Your task to perform on an android device: check google app version Image 0: 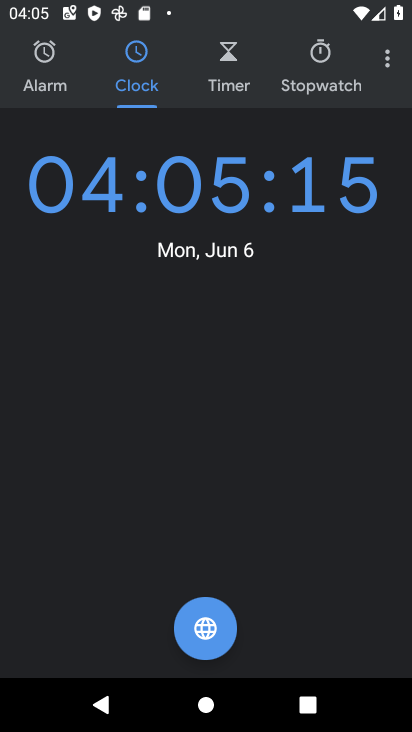
Step 0: press home button
Your task to perform on an android device: check google app version Image 1: 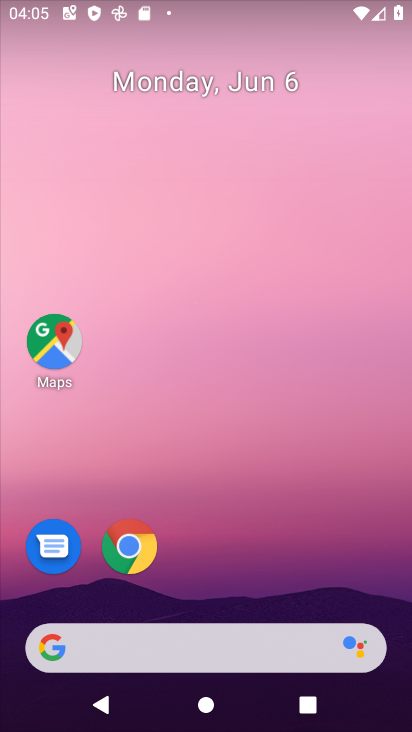
Step 1: drag from (267, 593) to (276, 285)
Your task to perform on an android device: check google app version Image 2: 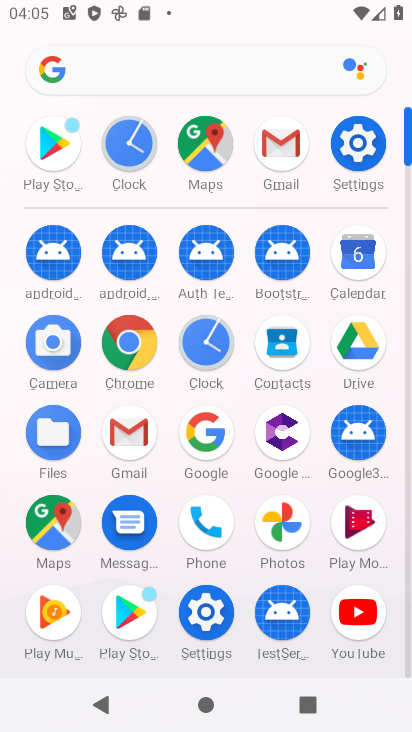
Step 2: click (149, 362)
Your task to perform on an android device: check google app version Image 3: 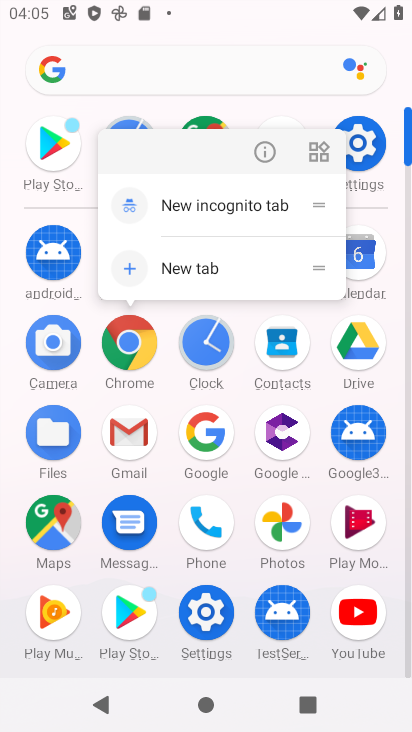
Step 3: click (271, 158)
Your task to perform on an android device: check google app version Image 4: 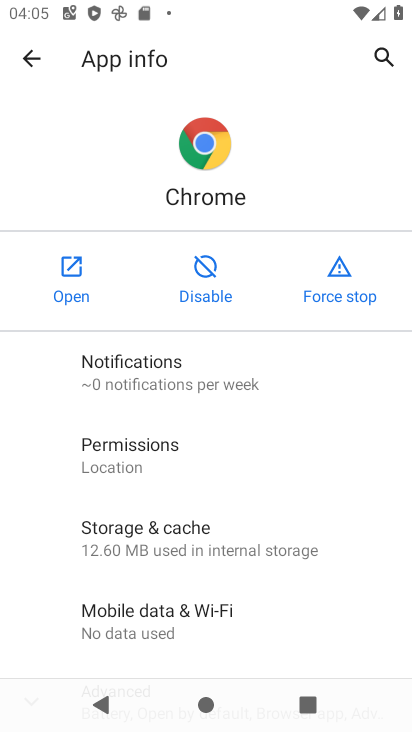
Step 4: drag from (132, 537) to (184, 292)
Your task to perform on an android device: check google app version Image 5: 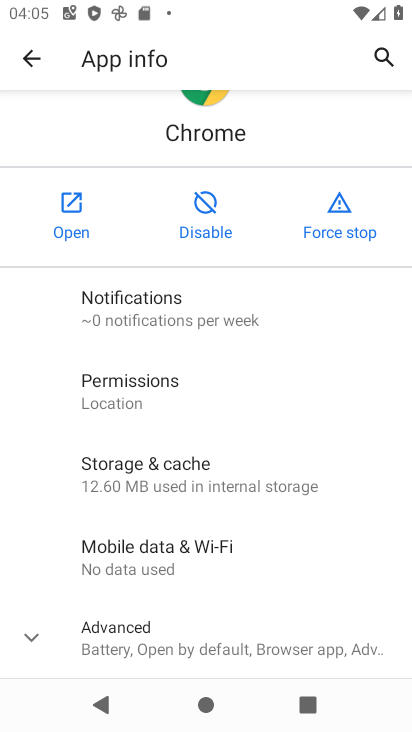
Step 5: click (200, 643)
Your task to perform on an android device: check google app version Image 6: 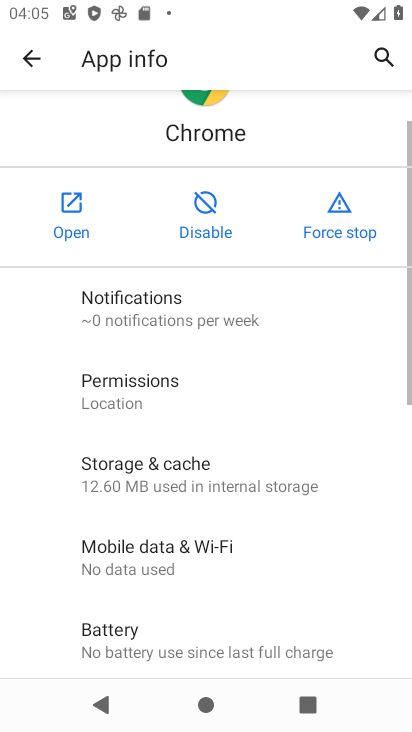
Step 6: task complete